Your task to perform on an android device: open app "Google Play Music" (install if not already installed) Image 0: 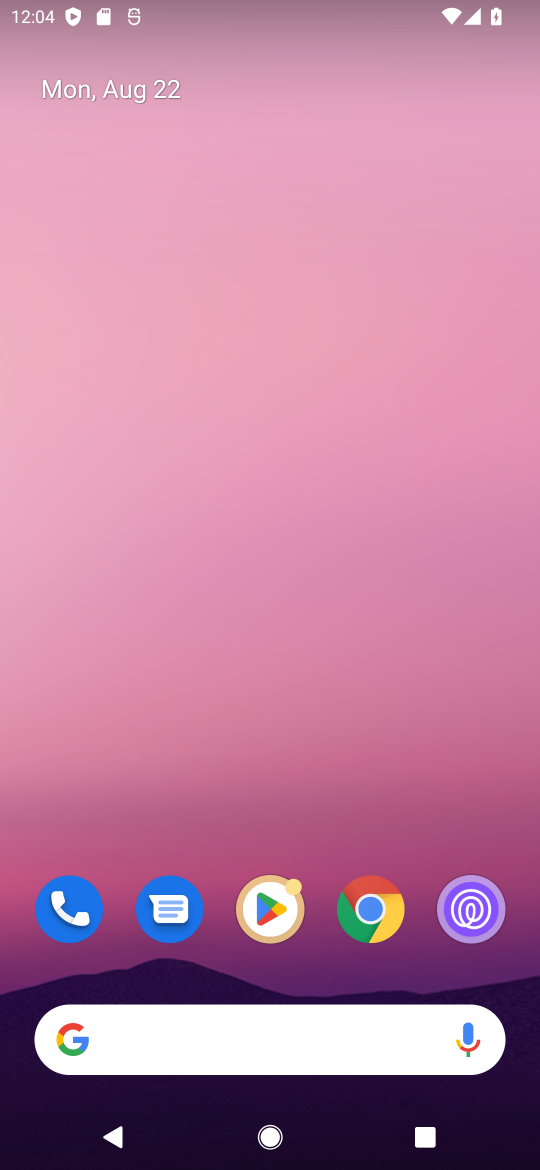
Step 0: click (267, 915)
Your task to perform on an android device: open app "Google Play Music" (install if not already installed) Image 1: 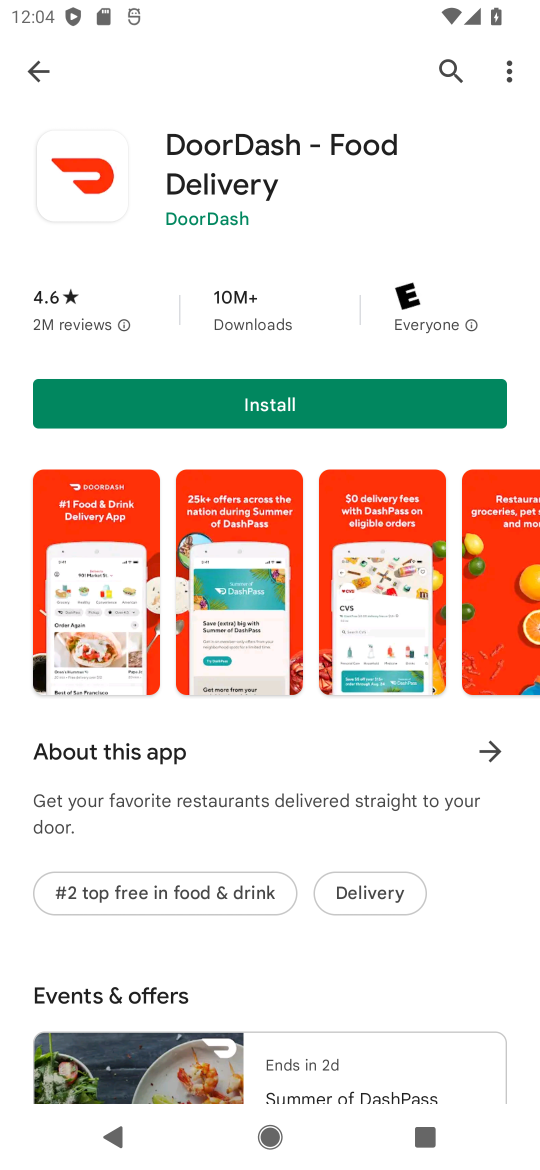
Step 1: click (453, 61)
Your task to perform on an android device: open app "Google Play Music" (install if not already installed) Image 2: 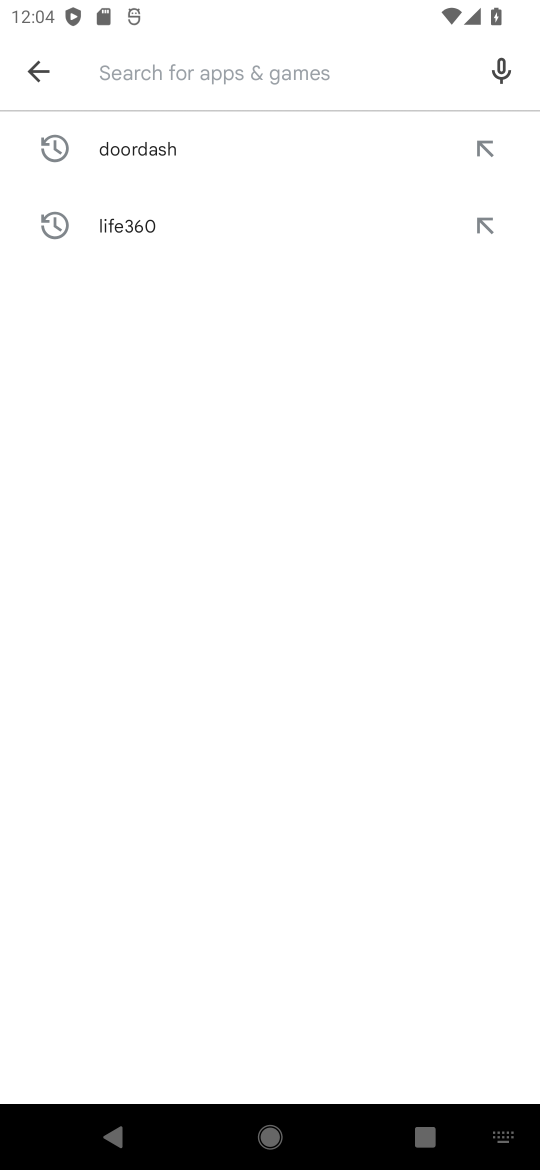
Step 2: click (227, 69)
Your task to perform on an android device: open app "Google Play Music" (install if not already installed) Image 3: 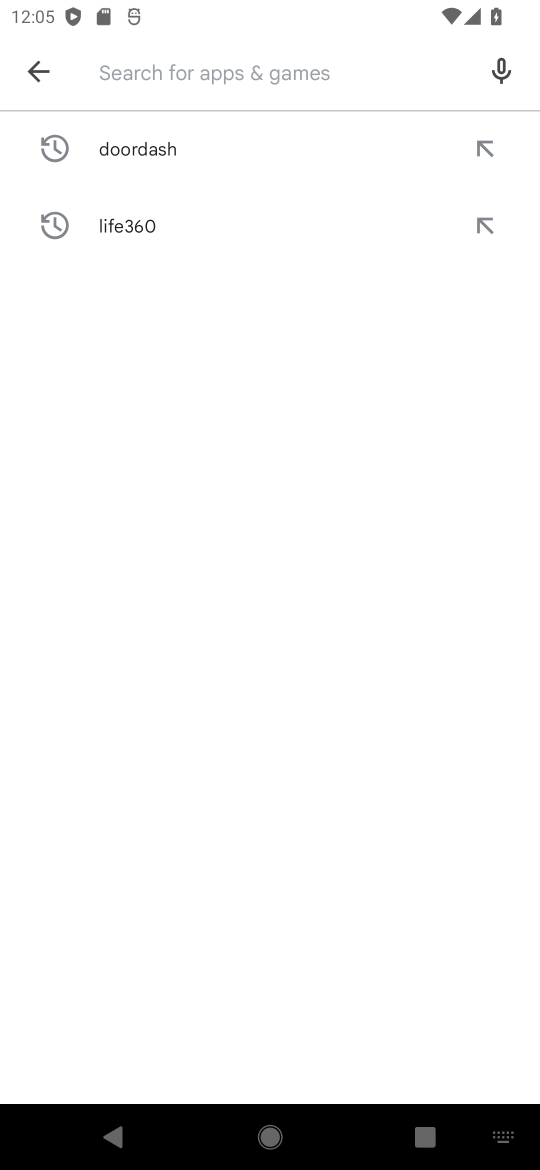
Step 3: click (117, 58)
Your task to perform on an android device: open app "Google Play Music" (install if not already installed) Image 4: 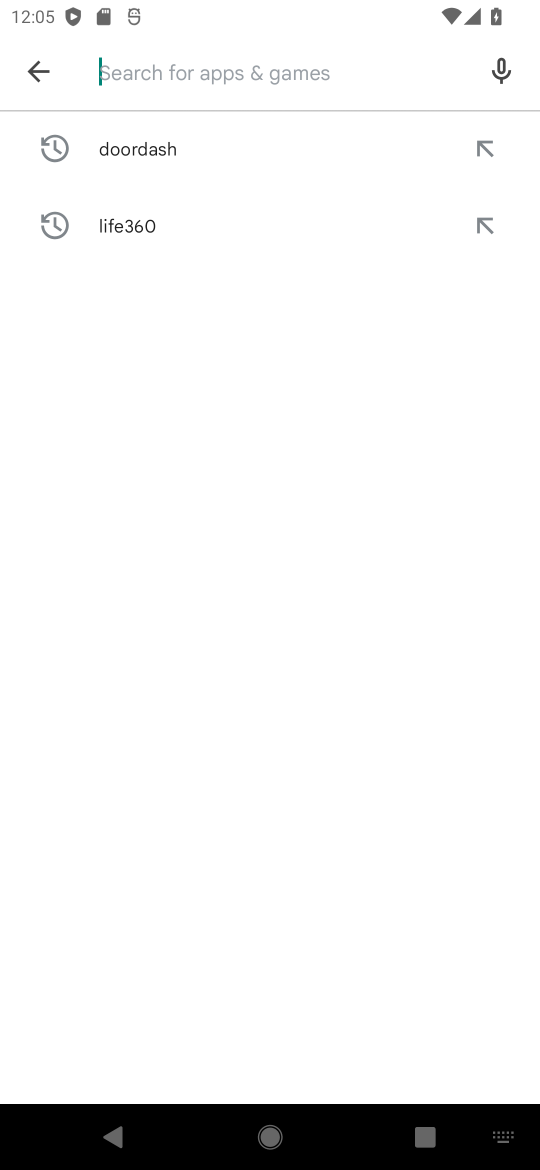
Step 4: type "Google Play Music"
Your task to perform on an android device: open app "Google Play Music" (install if not already installed) Image 5: 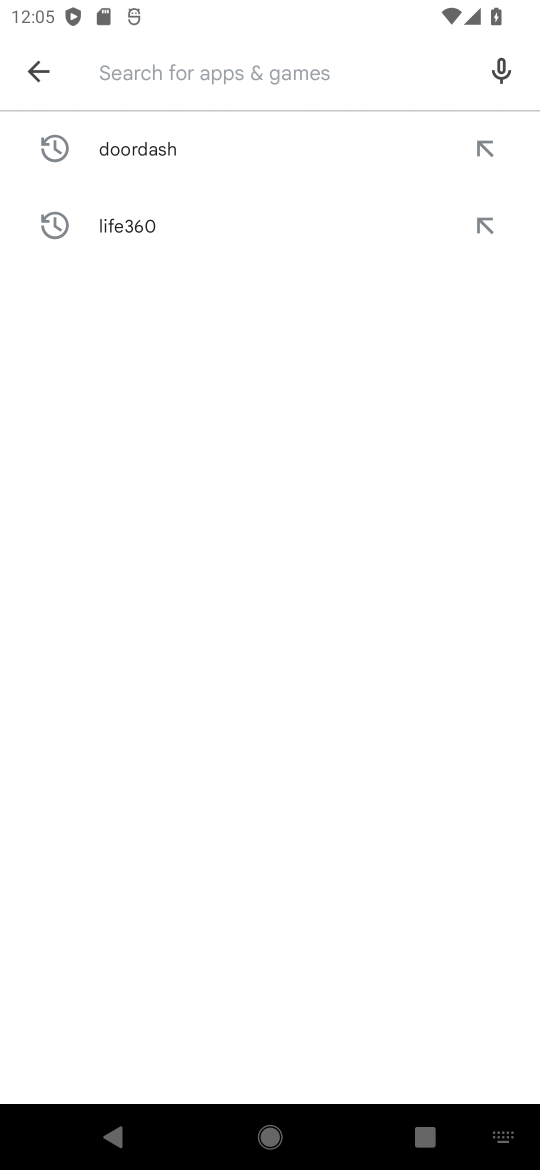
Step 5: click (235, 761)
Your task to perform on an android device: open app "Google Play Music" (install if not already installed) Image 6: 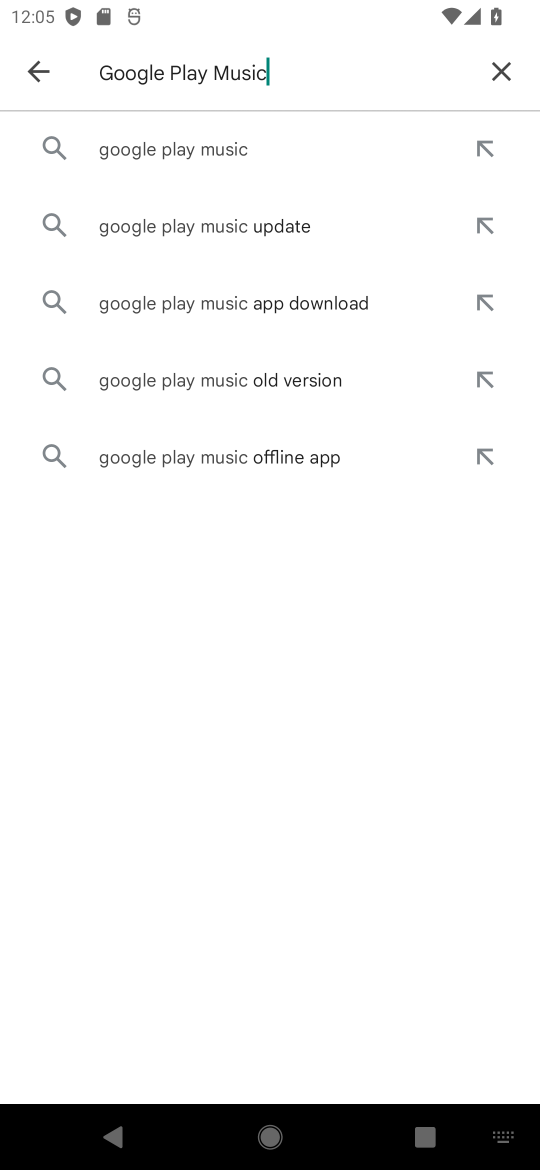
Step 6: click (230, 155)
Your task to perform on an android device: open app "Google Play Music" (install if not already installed) Image 7: 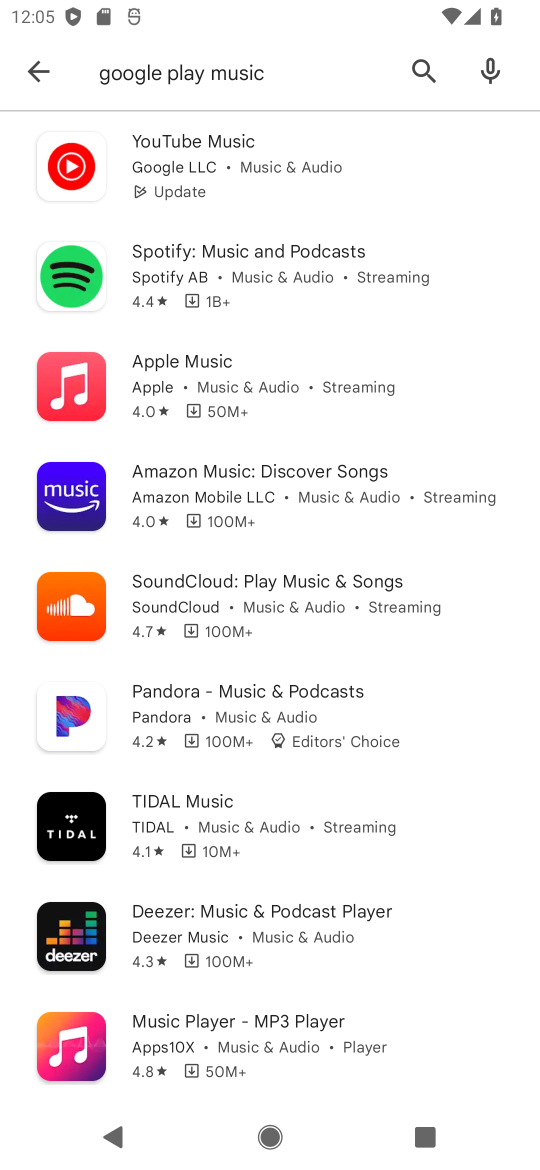
Step 7: task complete